Your task to perform on an android device: Go to Google maps Image 0: 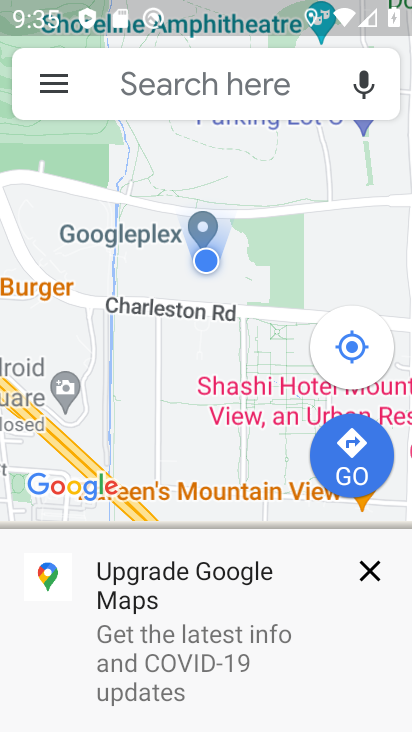
Step 0: drag from (355, 551) to (387, 279)
Your task to perform on an android device: Go to Google maps Image 1: 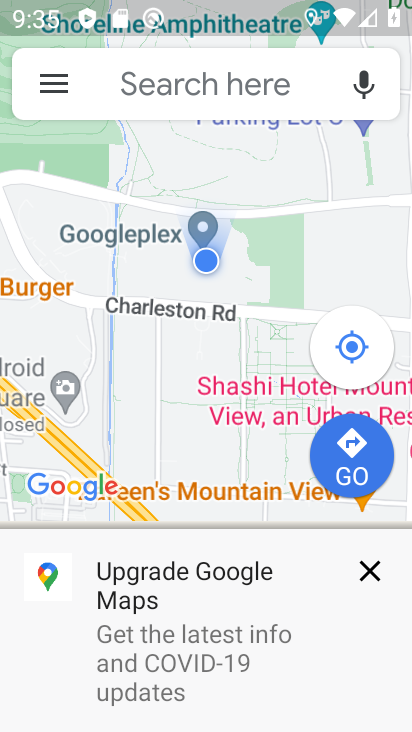
Step 1: task complete